Your task to perform on an android device: open chrome and create a bookmark for the current page Image 0: 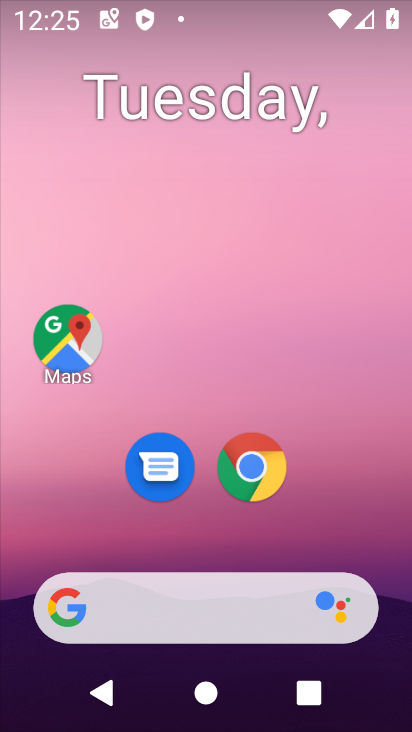
Step 0: drag from (365, 479) to (270, 45)
Your task to perform on an android device: open chrome and create a bookmark for the current page Image 1: 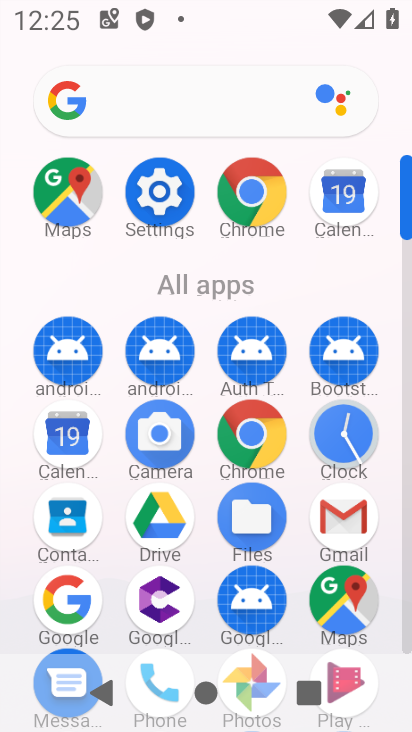
Step 1: drag from (4, 432) to (6, 249)
Your task to perform on an android device: open chrome and create a bookmark for the current page Image 2: 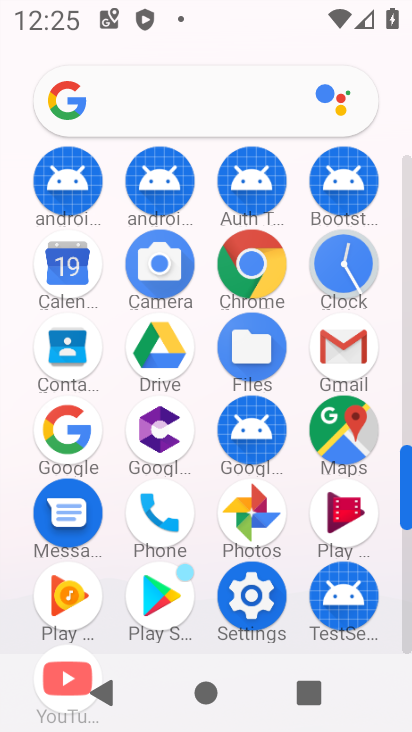
Step 2: click (249, 257)
Your task to perform on an android device: open chrome and create a bookmark for the current page Image 3: 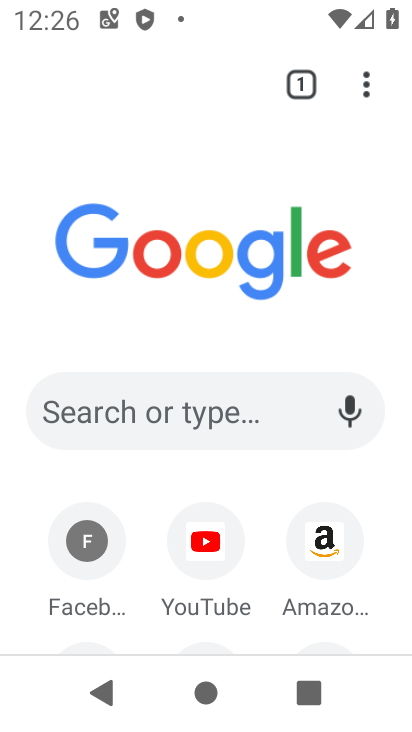
Step 3: drag from (363, 78) to (209, 297)
Your task to perform on an android device: open chrome and create a bookmark for the current page Image 4: 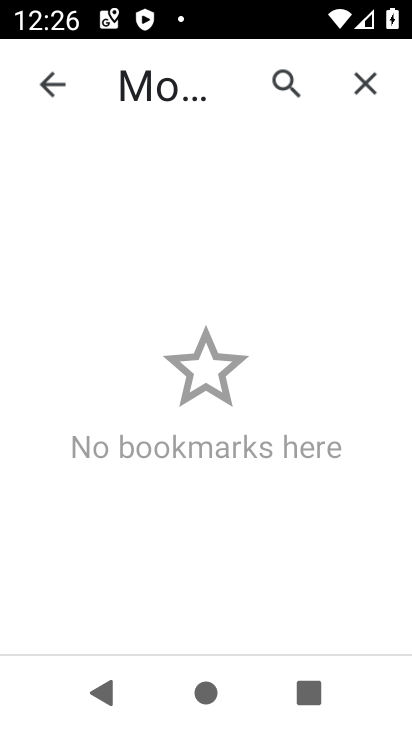
Step 4: click (62, 85)
Your task to perform on an android device: open chrome and create a bookmark for the current page Image 5: 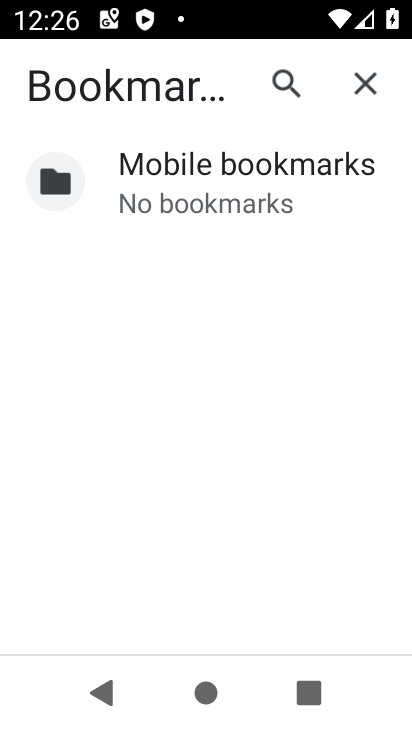
Step 5: task complete